Your task to perform on an android device: Search for logitech g903 on walmart.com, select the first entry, and add it to the cart. Image 0: 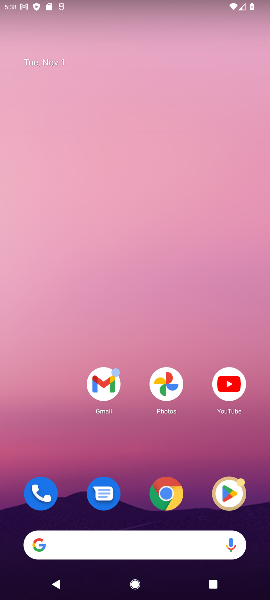
Step 0: click (178, 495)
Your task to perform on an android device: Search for logitech g903 on walmart.com, select the first entry, and add it to the cart. Image 1: 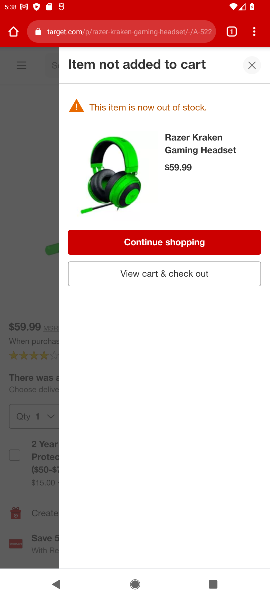
Step 1: click (162, 33)
Your task to perform on an android device: Search for logitech g903 on walmart.com, select the first entry, and add it to the cart. Image 2: 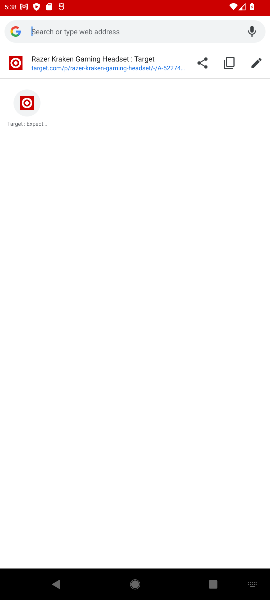
Step 2: type "walmart.com"
Your task to perform on an android device: Search for logitech g903 on walmart.com, select the first entry, and add it to the cart. Image 3: 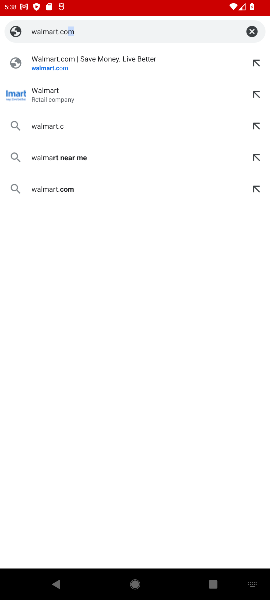
Step 3: press enter
Your task to perform on an android device: Search for logitech g903 on walmart.com, select the first entry, and add it to the cart. Image 4: 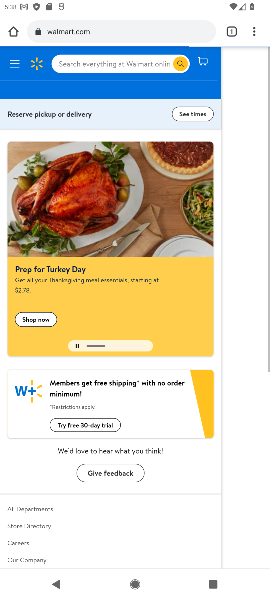
Step 4: click (164, 66)
Your task to perform on an android device: Search for logitech g903 on walmart.com, select the first entry, and add it to the cart. Image 5: 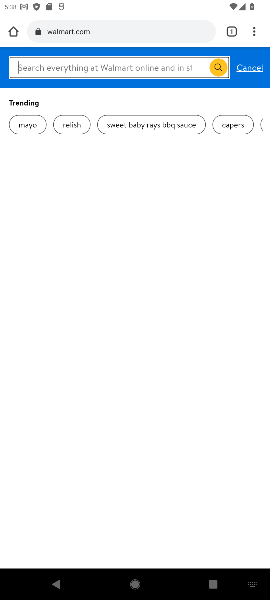
Step 5: type " logitech g903"
Your task to perform on an android device: Search for logitech g903 on walmart.com, select the first entry, and add it to the cart. Image 6: 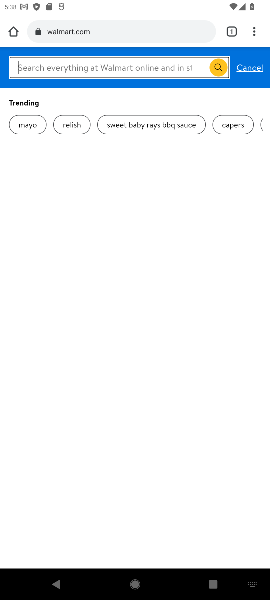
Step 6: press enter
Your task to perform on an android device: Search for logitech g903 on walmart.com, select the first entry, and add it to the cart. Image 7: 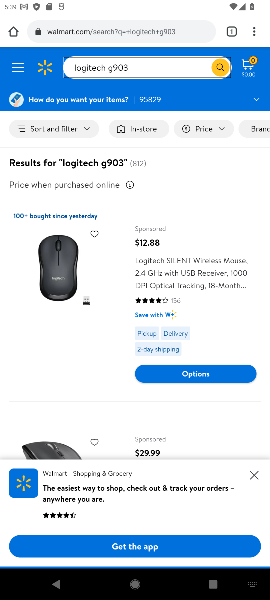
Step 7: click (55, 280)
Your task to perform on an android device: Search for logitech g903 on walmart.com, select the first entry, and add it to the cart. Image 8: 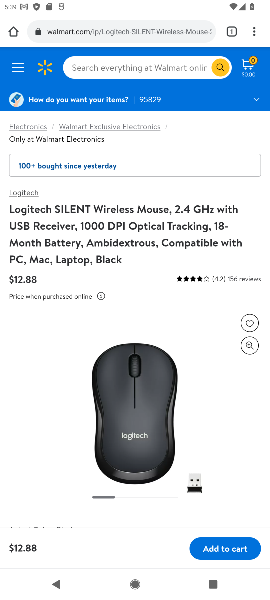
Step 8: press back button
Your task to perform on an android device: Search for logitech g903 on walmart.com, select the first entry, and add it to the cart. Image 9: 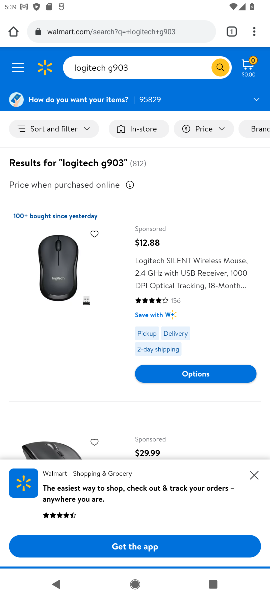
Step 9: click (250, 474)
Your task to perform on an android device: Search for logitech g903 on walmart.com, select the first entry, and add it to the cart. Image 10: 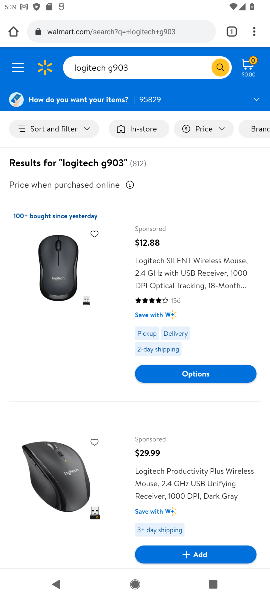
Step 10: drag from (93, 389) to (121, 202)
Your task to perform on an android device: Search for logitech g903 on walmart.com, select the first entry, and add it to the cart. Image 11: 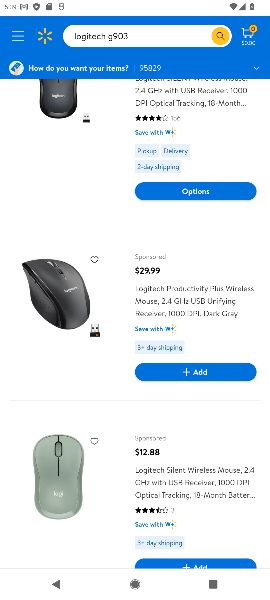
Step 11: drag from (77, 265) to (71, 460)
Your task to perform on an android device: Search for logitech g903 on walmart.com, select the first entry, and add it to the cart. Image 12: 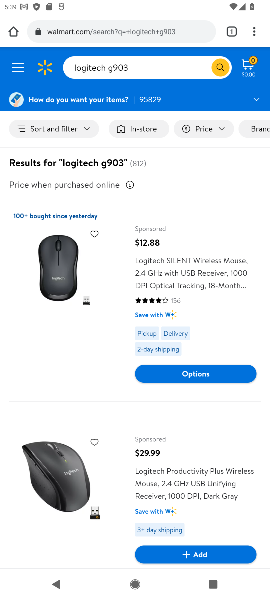
Step 12: click (48, 265)
Your task to perform on an android device: Search for logitech g903 on walmart.com, select the first entry, and add it to the cart. Image 13: 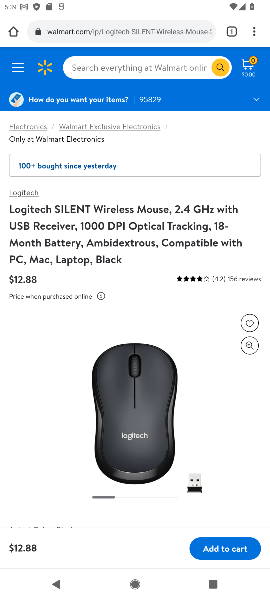
Step 13: click (241, 548)
Your task to perform on an android device: Search for logitech g903 on walmart.com, select the first entry, and add it to the cart. Image 14: 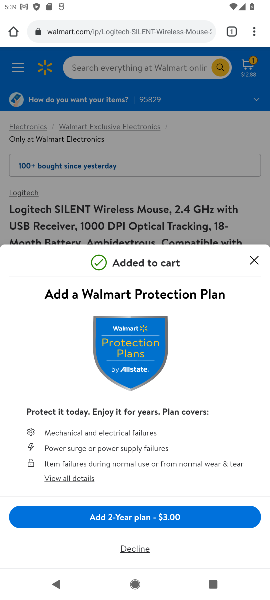
Step 14: task complete